Your task to perform on an android device: Is it going to rain tomorrow? Image 0: 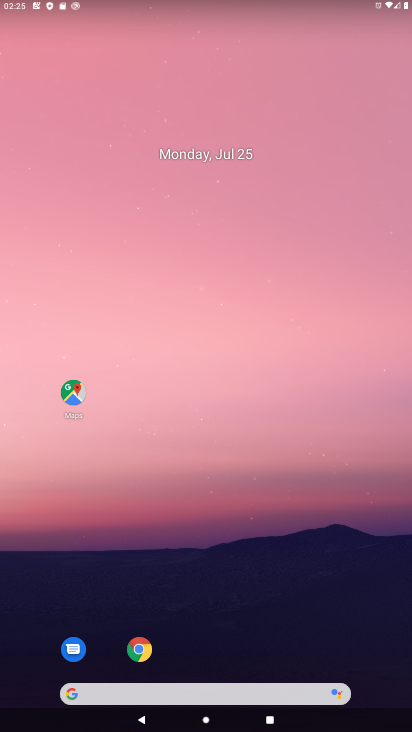
Step 0: drag from (7, 266) to (401, 288)
Your task to perform on an android device: Is it going to rain tomorrow? Image 1: 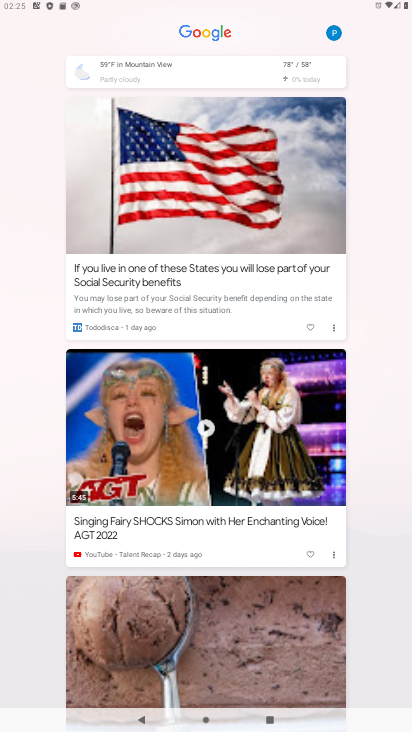
Step 1: click (288, 63)
Your task to perform on an android device: Is it going to rain tomorrow? Image 2: 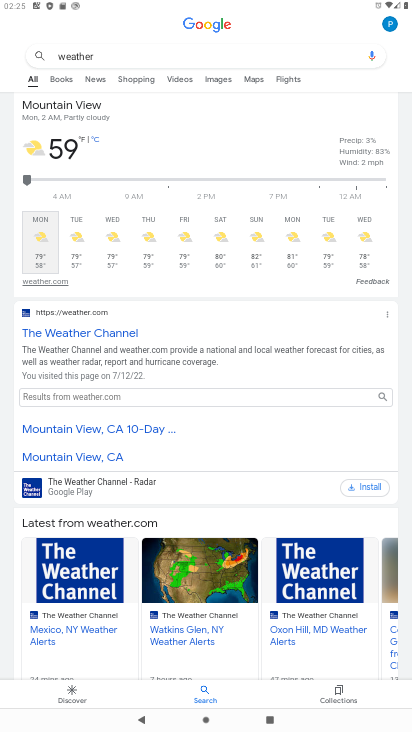
Step 2: task complete